Your task to perform on an android device: check android version Image 0: 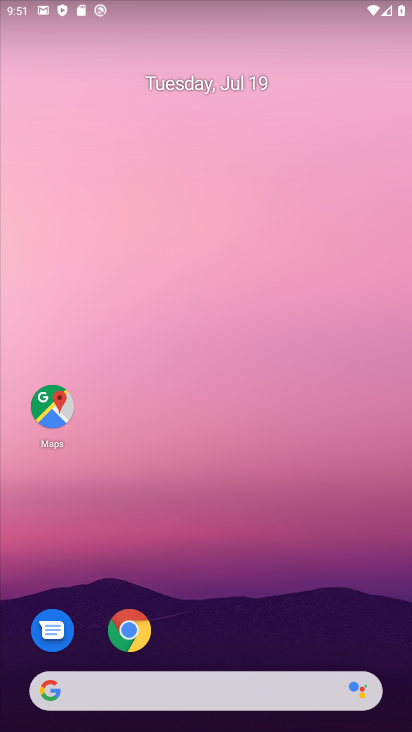
Step 0: drag from (278, 633) to (324, 112)
Your task to perform on an android device: check android version Image 1: 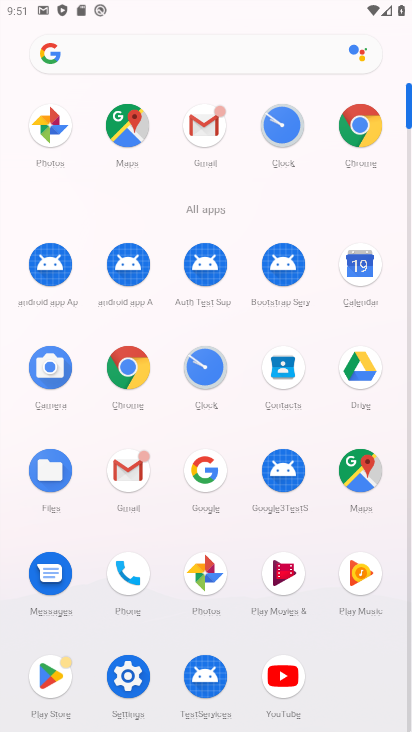
Step 1: click (133, 683)
Your task to perform on an android device: check android version Image 2: 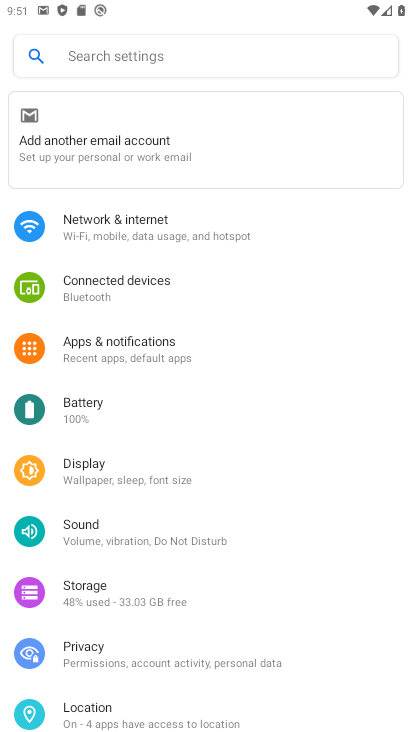
Step 2: drag from (263, 686) to (245, 266)
Your task to perform on an android device: check android version Image 3: 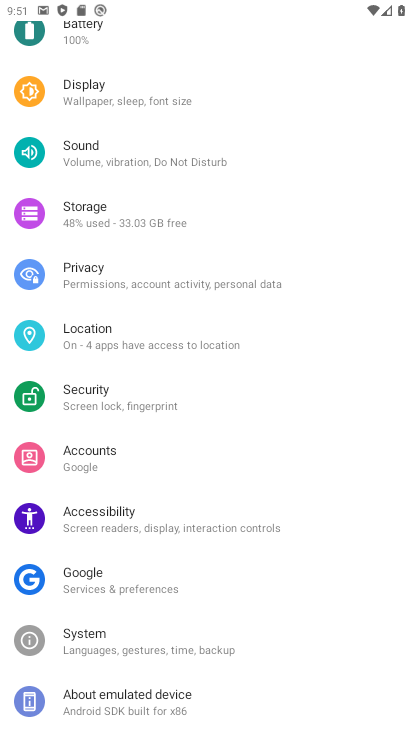
Step 3: click (181, 703)
Your task to perform on an android device: check android version Image 4: 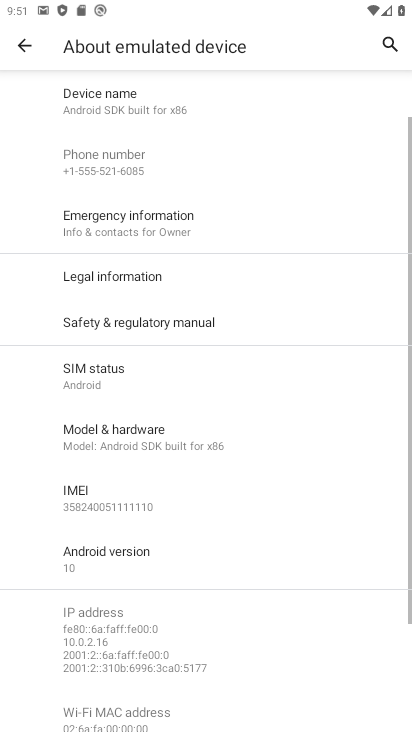
Step 4: click (201, 555)
Your task to perform on an android device: check android version Image 5: 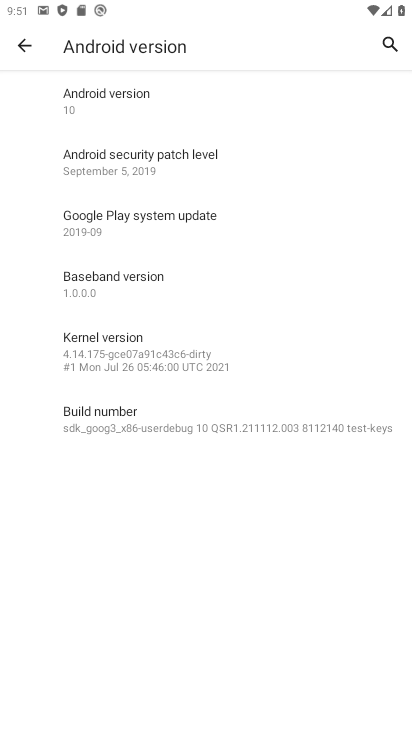
Step 5: task complete